Your task to perform on an android device: What's on my calendar tomorrow? Image 0: 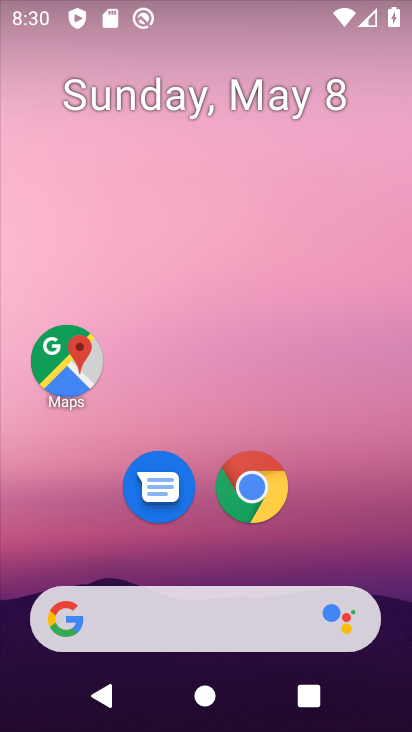
Step 0: drag from (191, 555) to (220, 199)
Your task to perform on an android device: What's on my calendar tomorrow? Image 1: 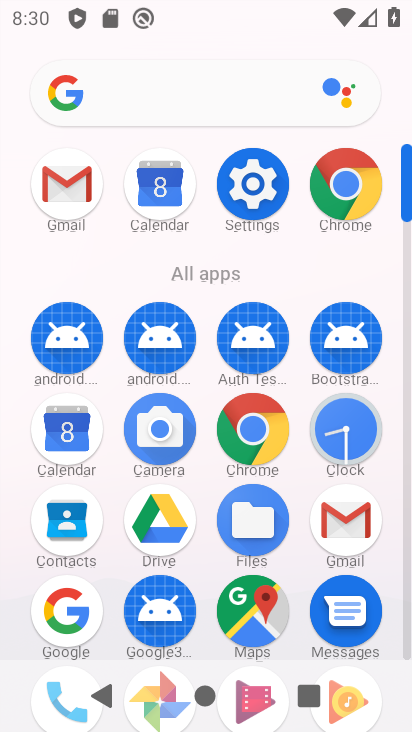
Step 1: click (48, 428)
Your task to perform on an android device: What's on my calendar tomorrow? Image 2: 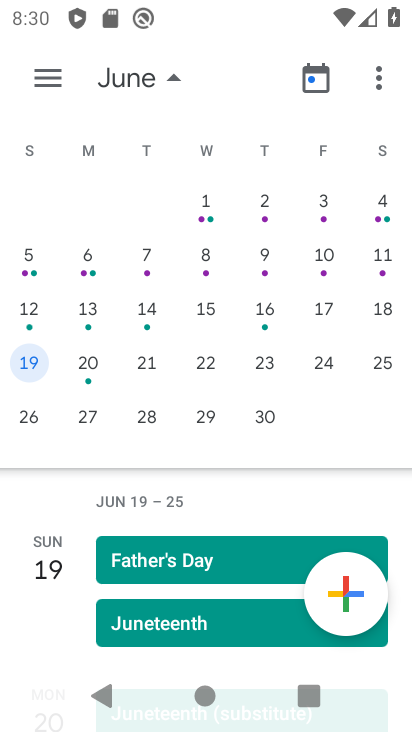
Step 2: drag from (88, 246) to (409, 268)
Your task to perform on an android device: What's on my calendar tomorrow? Image 3: 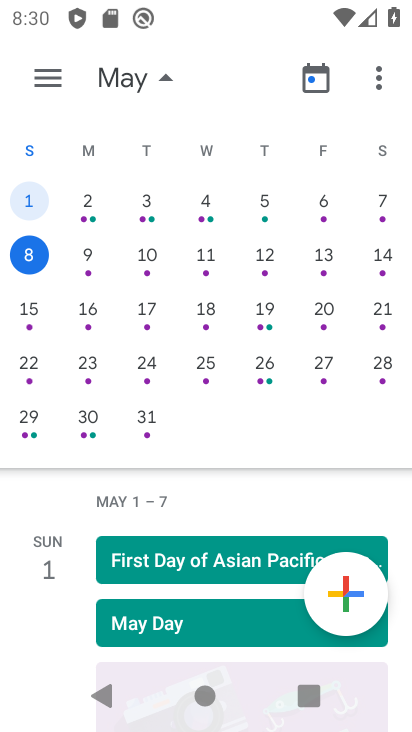
Step 3: click (79, 256)
Your task to perform on an android device: What's on my calendar tomorrow? Image 4: 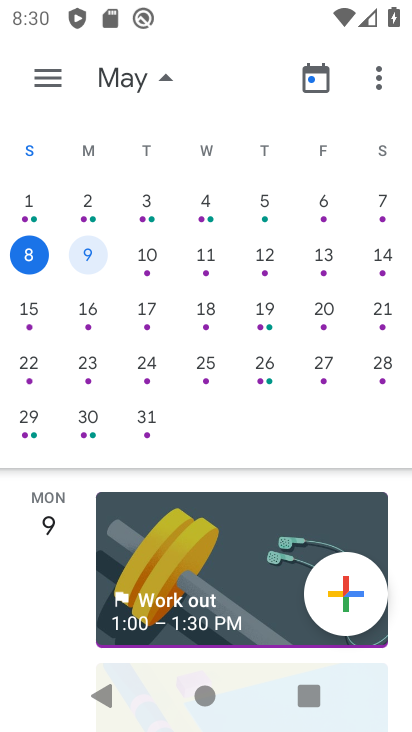
Step 4: task complete